Your task to perform on an android device: Search for seafood restaurants on Google Maps Image 0: 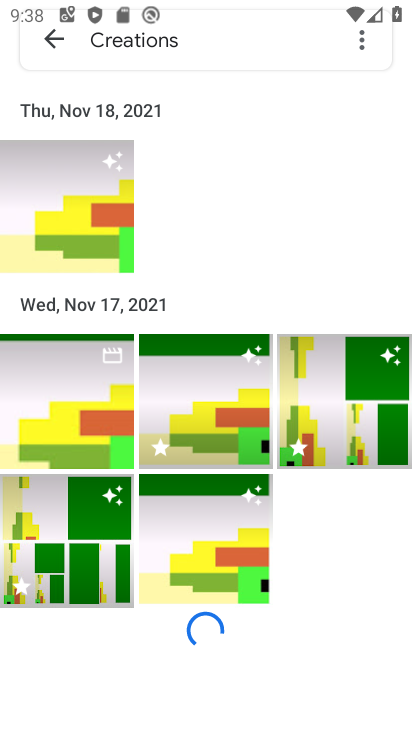
Step 0: press home button
Your task to perform on an android device: Search for seafood restaurants on Google Maps Image 1: 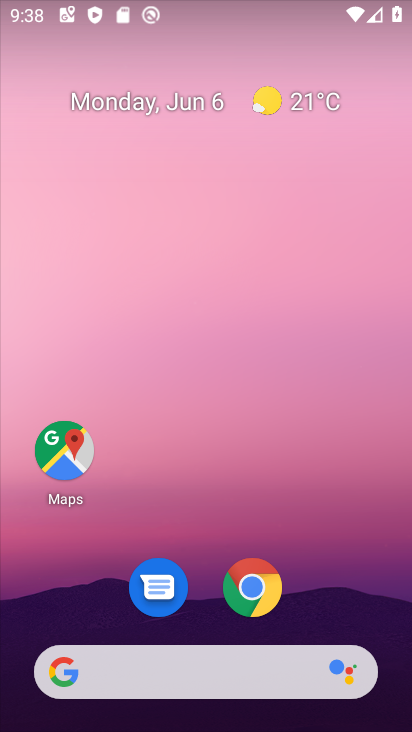
Step 1: click (46, 448)
Your task to perform on an android device: Search for seafood restaurants on Google Maps Image 2: 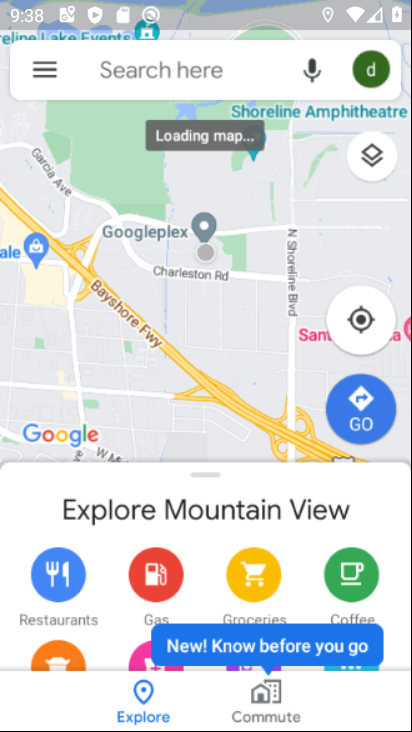
Step 2: click (214, 57)
Your task to perform on an android device: Search for seafood restaurants on Google Maps Image 3: 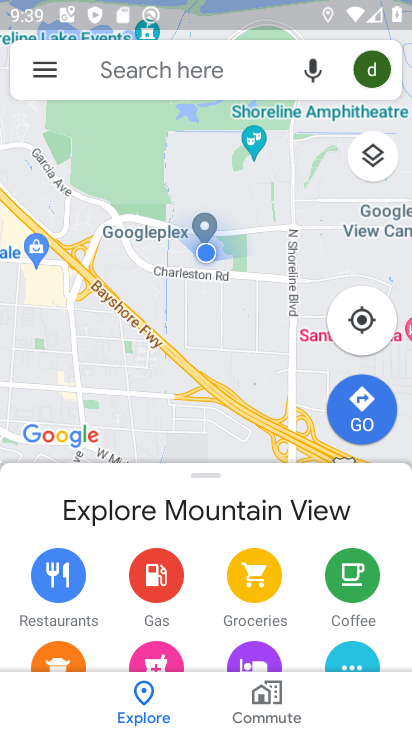
Step 3: click (201, 75)
Your task to perform on an android device: Search for seafood restaurants on Google Maps Image 4: 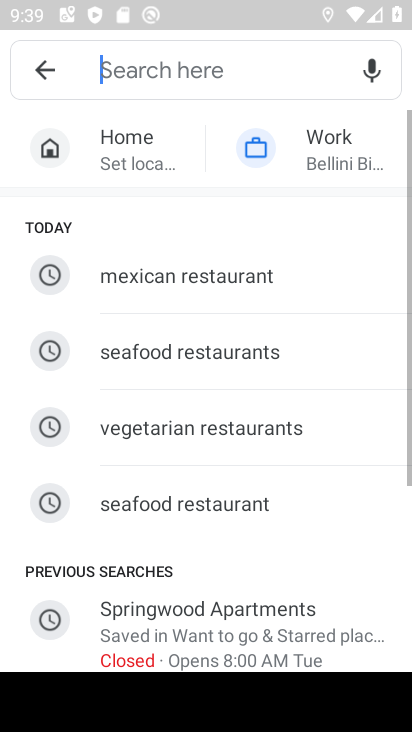
Step 4: click (213, 346)
Your task to perform on an android device: Search for seafood restaurants on Google Maps Image 5: 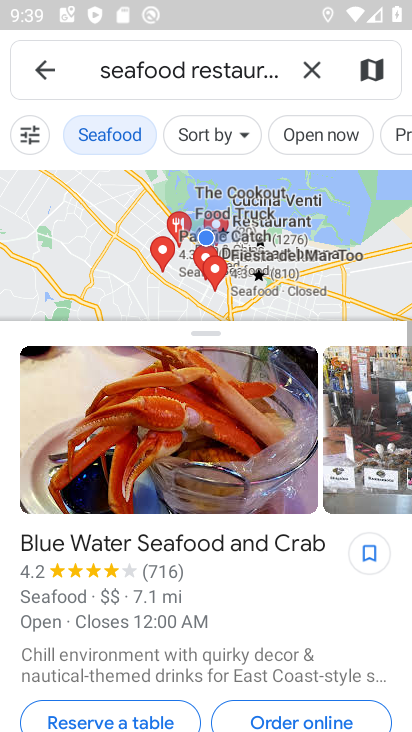
Step 5: task complete